Your task to perform on an android device: Go to privacy settings Image 0: 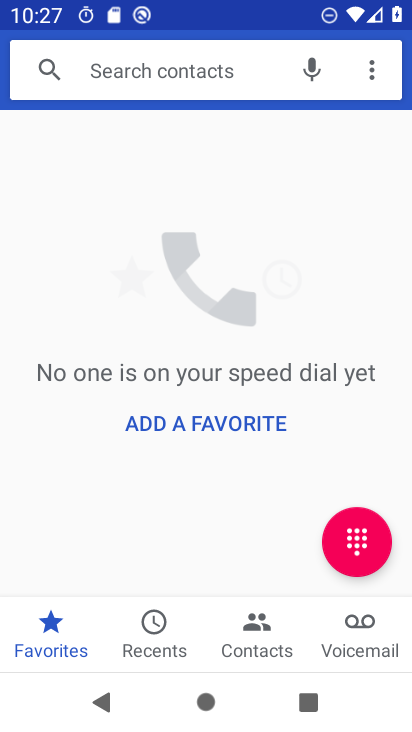
Step 0: press home button
Your task to perform on an android device: Go to privacy settings Image 1: 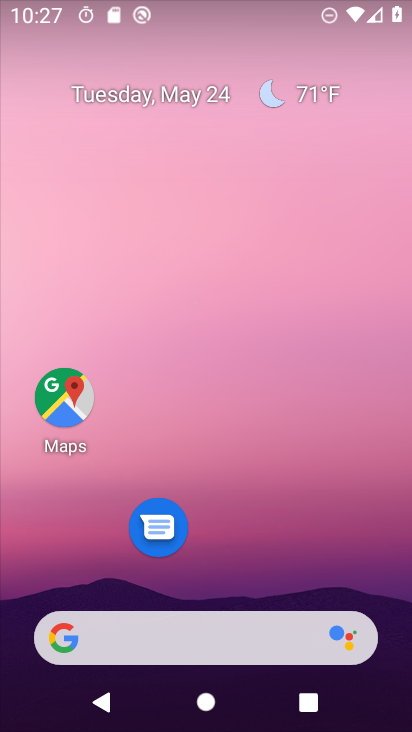
Step 1: drag from (248, 545) to (292, 129)
Your task to perform on an android device: Go to privacy settings Image 2: 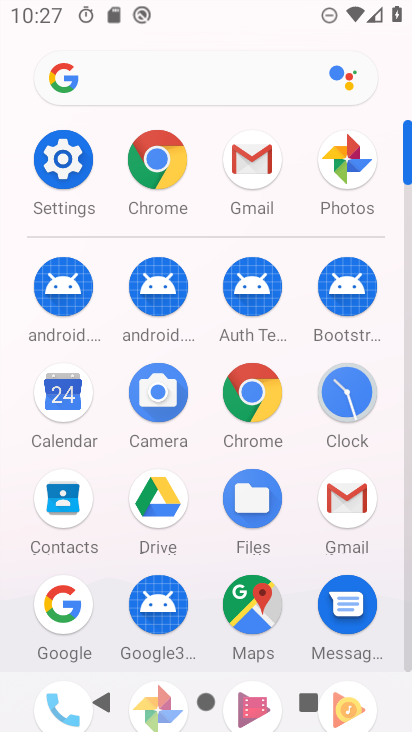
Step 2: click (57, 162)
Your task to perform on an android device: Go to privacy settings Image 3: 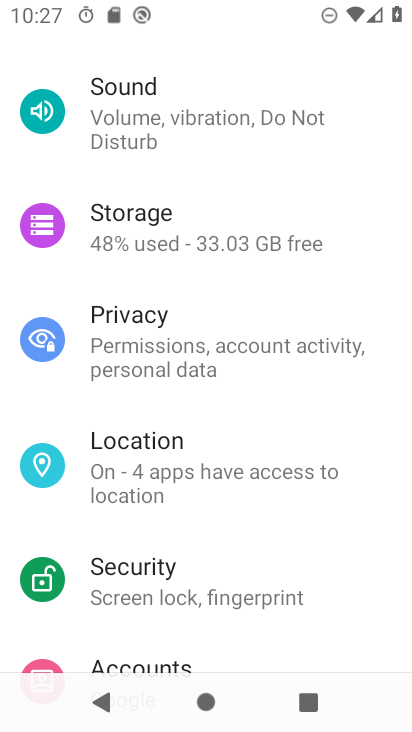
Step 3: click (142, 336)
Your task to perform on an android device: Go to privacy settings Image 4: 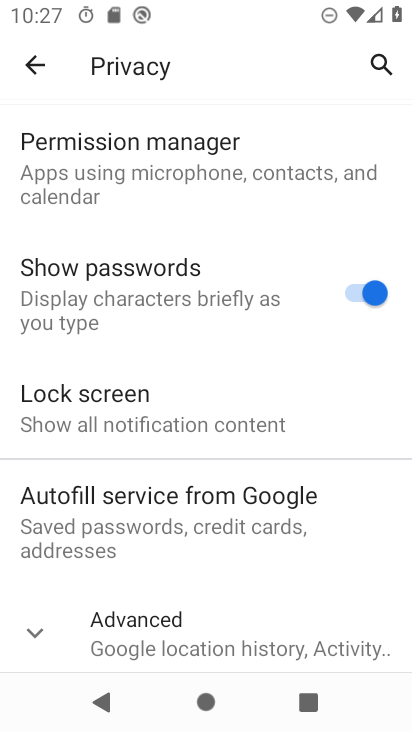
Step 4: task complete